Your task to perform on an android device: Open location settings Image 0: 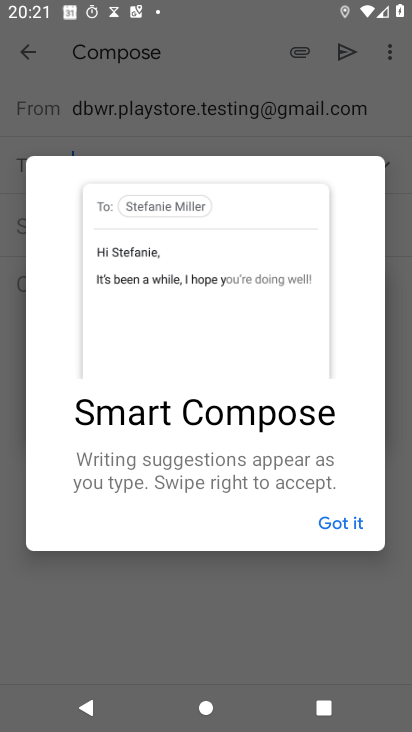
Step 0: press home button
Your task to perform on an android device: Open location settings Image 1: 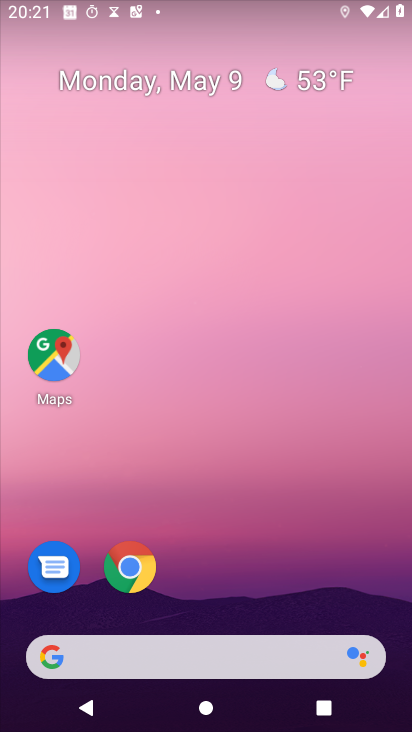
Step 1: drag from (228, 624) to (257, 53)
Your task to perform on an android device: Open location settings Image 2: 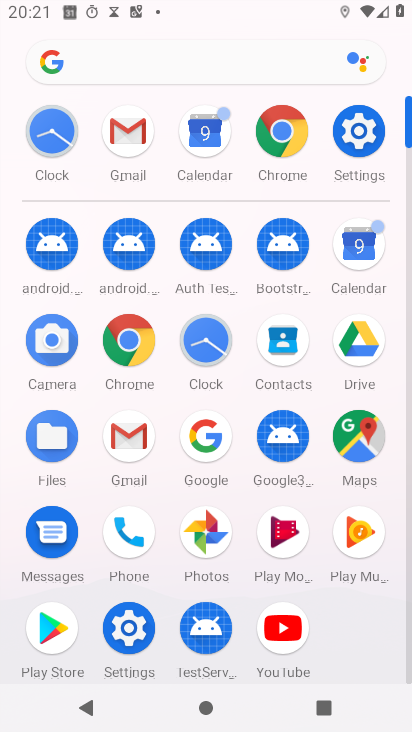
Step 2: click (350, 133)
Your task to perform on an android device: Open location settings Image 3: 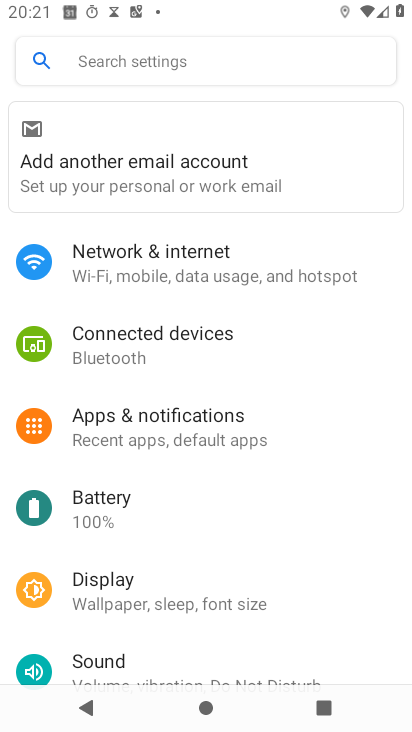
Step 3: drag from (167, 612) to (149, 472)
Your task to perform on an android device: Open location settings Image 4: 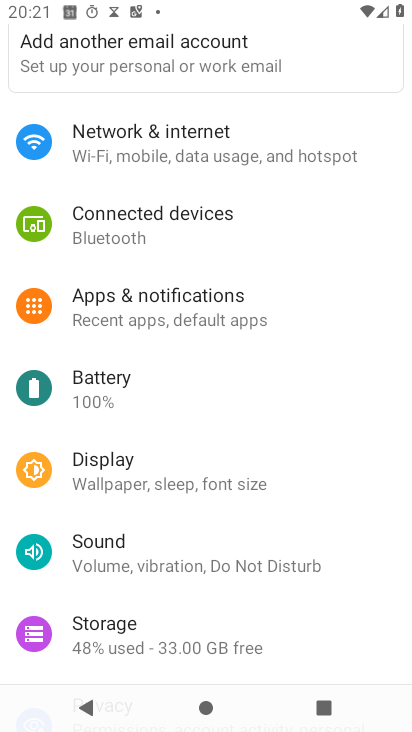
Step 4: drag from (150, 604) to (150, 440)
Your task to perform on an android device: Open location settings Image 5: 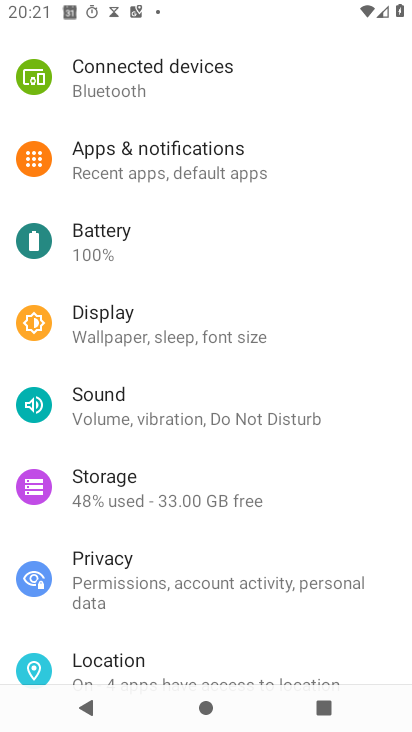
Step 5: click (151, 658)
Your task to perform on an android device: Open location settings Image 6: 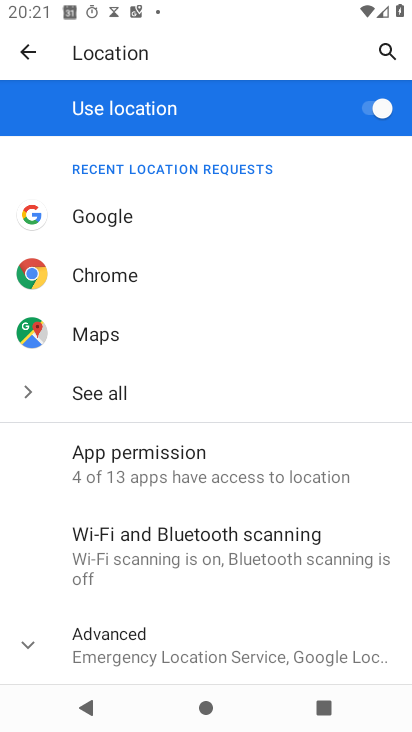
Step 6: task complete